Your task to perform on an android device: check out phone information Image 0: 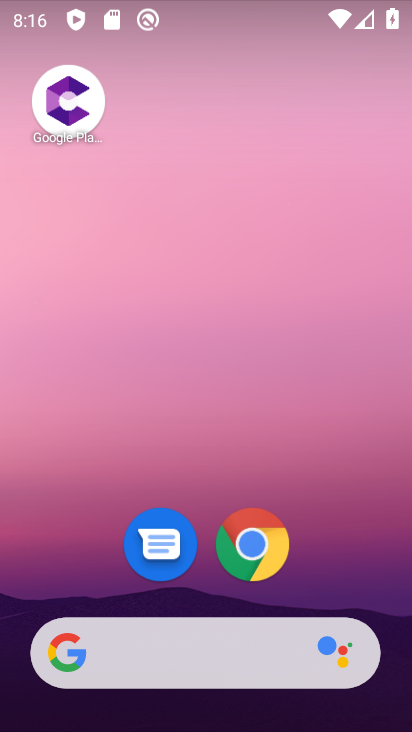
Step 0: drag from (313, 550) to (319, 26)
Your task to perform on an android device: check out phone information Image 1: 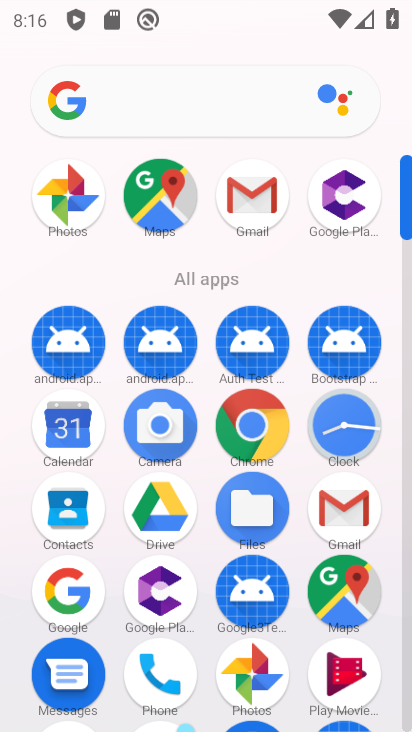
Step 1: drag from (299, 642) to (321, 0)
Your task to perform on an android device: check out phone information Image 2: 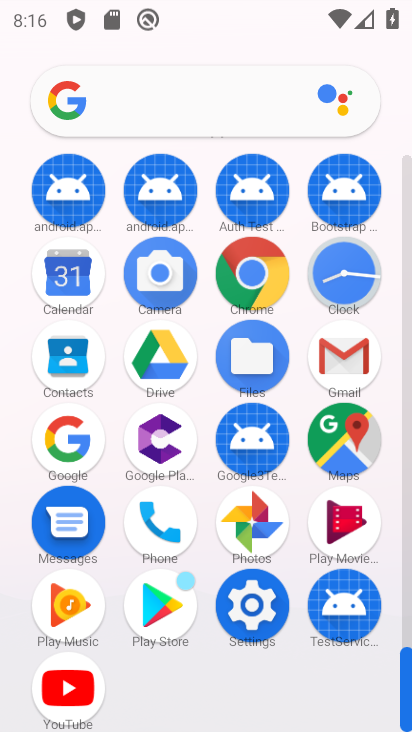
Step 2: click (260, 608)
Your task to perform on an android device: check out phone information Image 3: 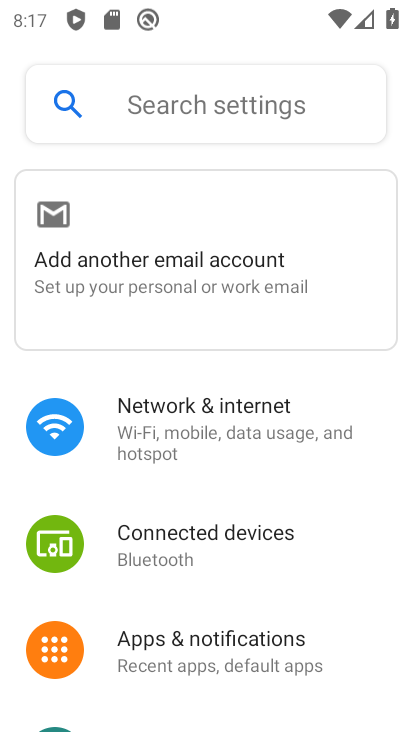
Step 3: drag from (219, 656) to (292, 40)
Your task to perform on an android device: check out phone information Image 4: 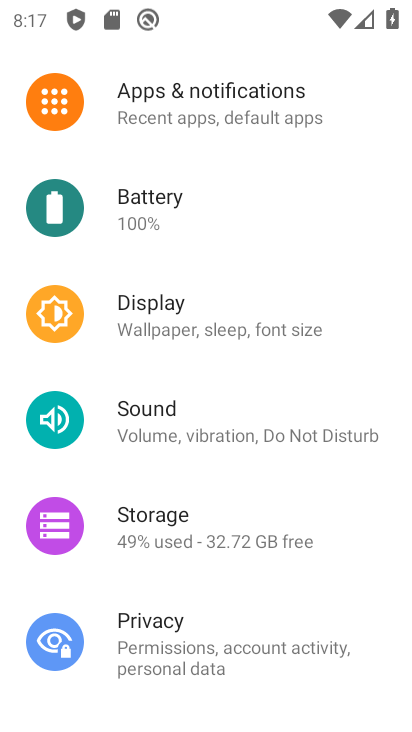
Step 4: drag from (249, 576) to (275, 0)
Your task to perform on an android device: check out phone information Image 5: 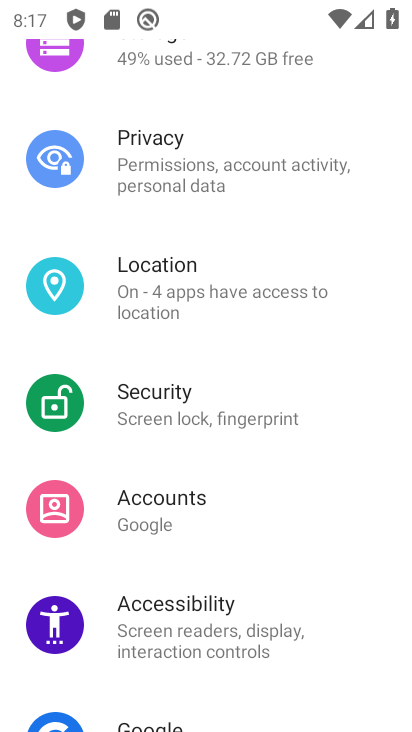
Step 5: drag from (210, 633) to (221, 8)
Your task to perform on an android device: check out phone information Image 6: 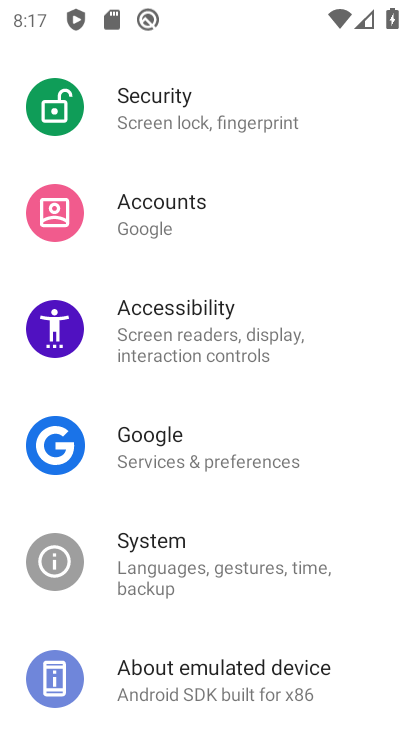
Step 6: click (189, 680)
Your task to perform on an android device: check out phone information Image 7: 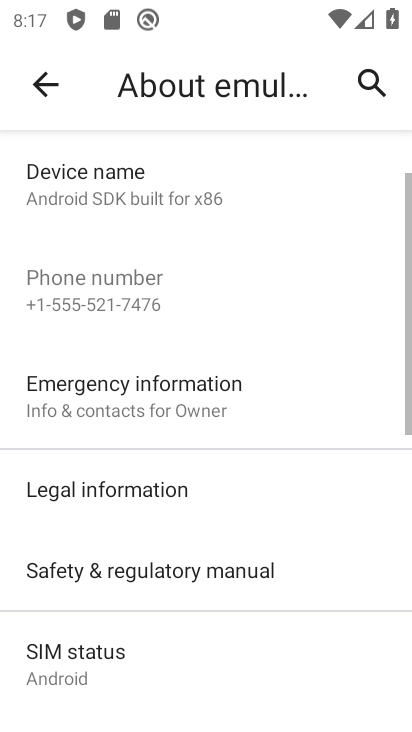
Step 7: task complete